Your task to perform on an android device: Search for "lenovo thinkpad" on newegg, select the first entry, add it to the cart, then select checkout. Image 0: 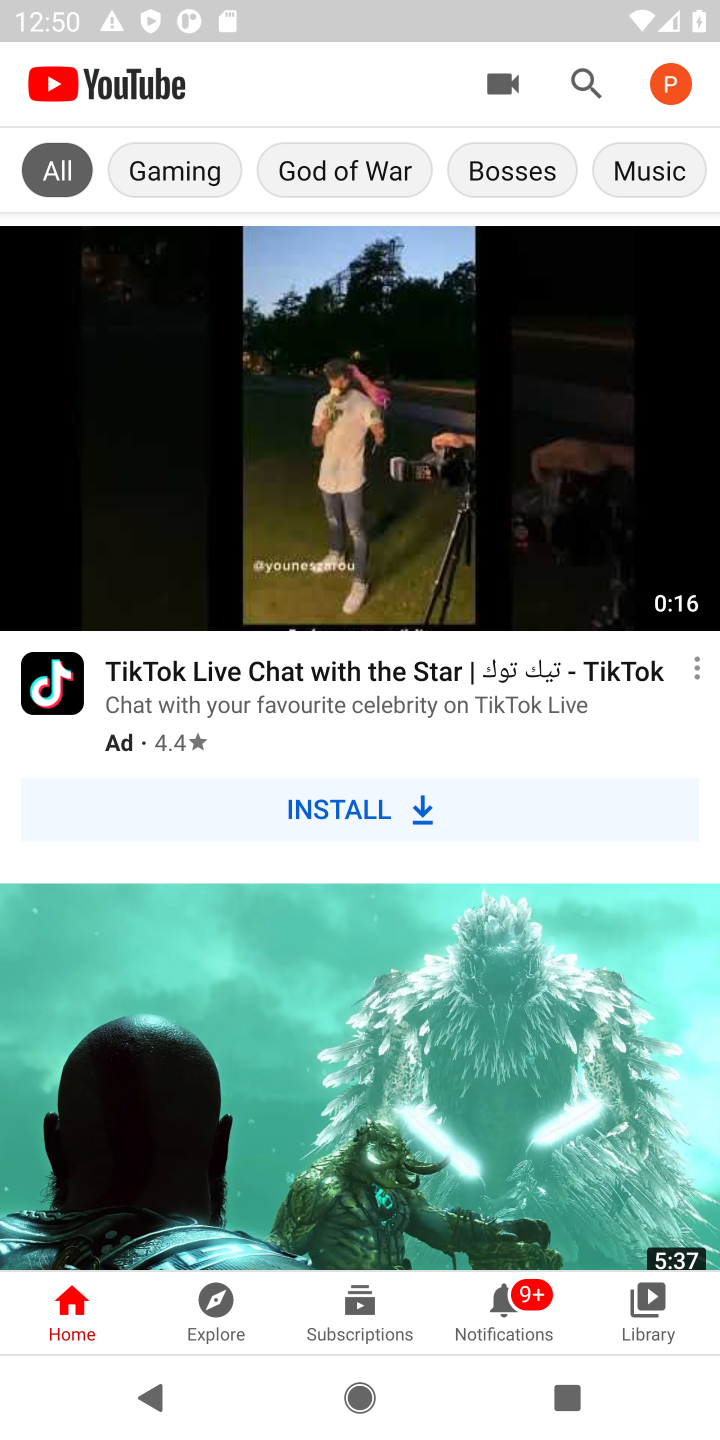
Step 0: press home button
Your task to perform on an android device: Search for "lenovo thinkpad" on newegg, select the first entry, add it to the cart, then select checkout. Image 1: 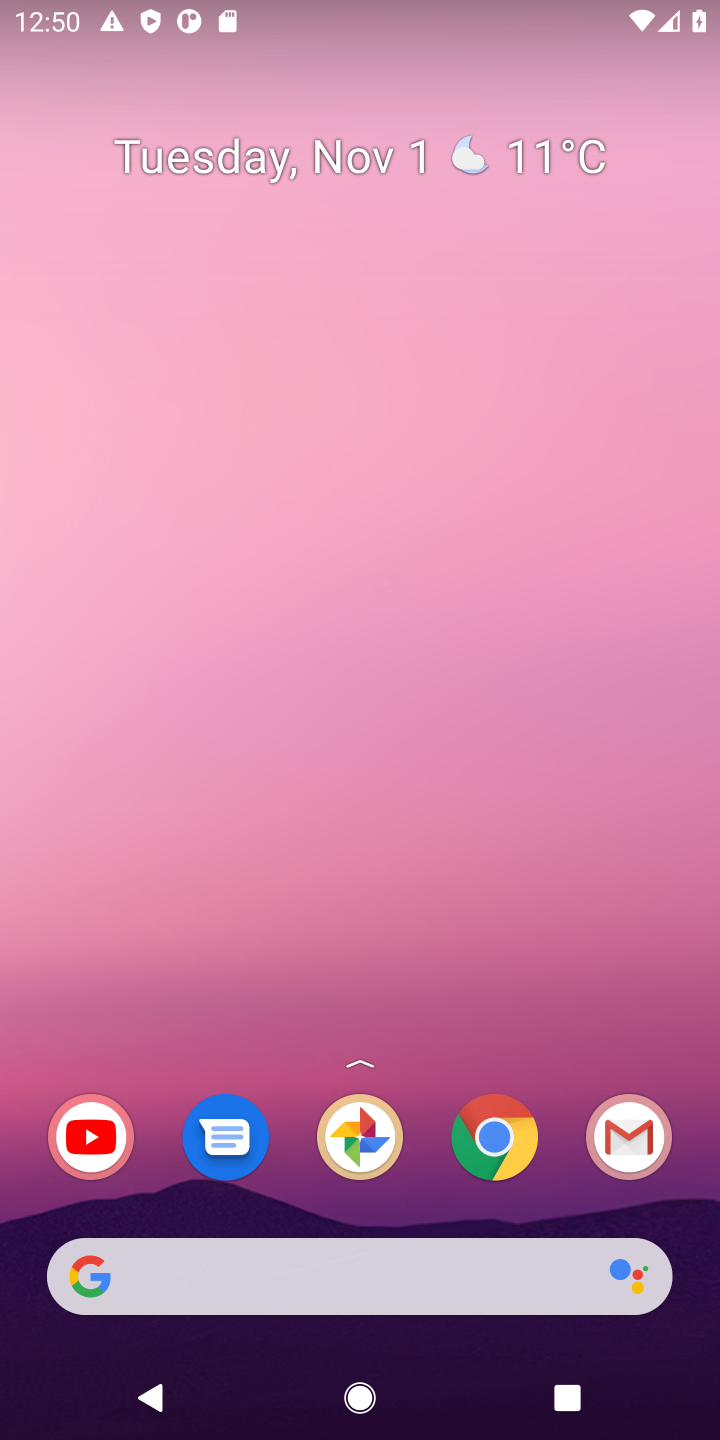
Step 1: click (404, 1266)
Your task to perform on an android device: Search for "lenovo thinkpad" on newegg, select the first entry, add it to the cart, then select checkout. Image 2: 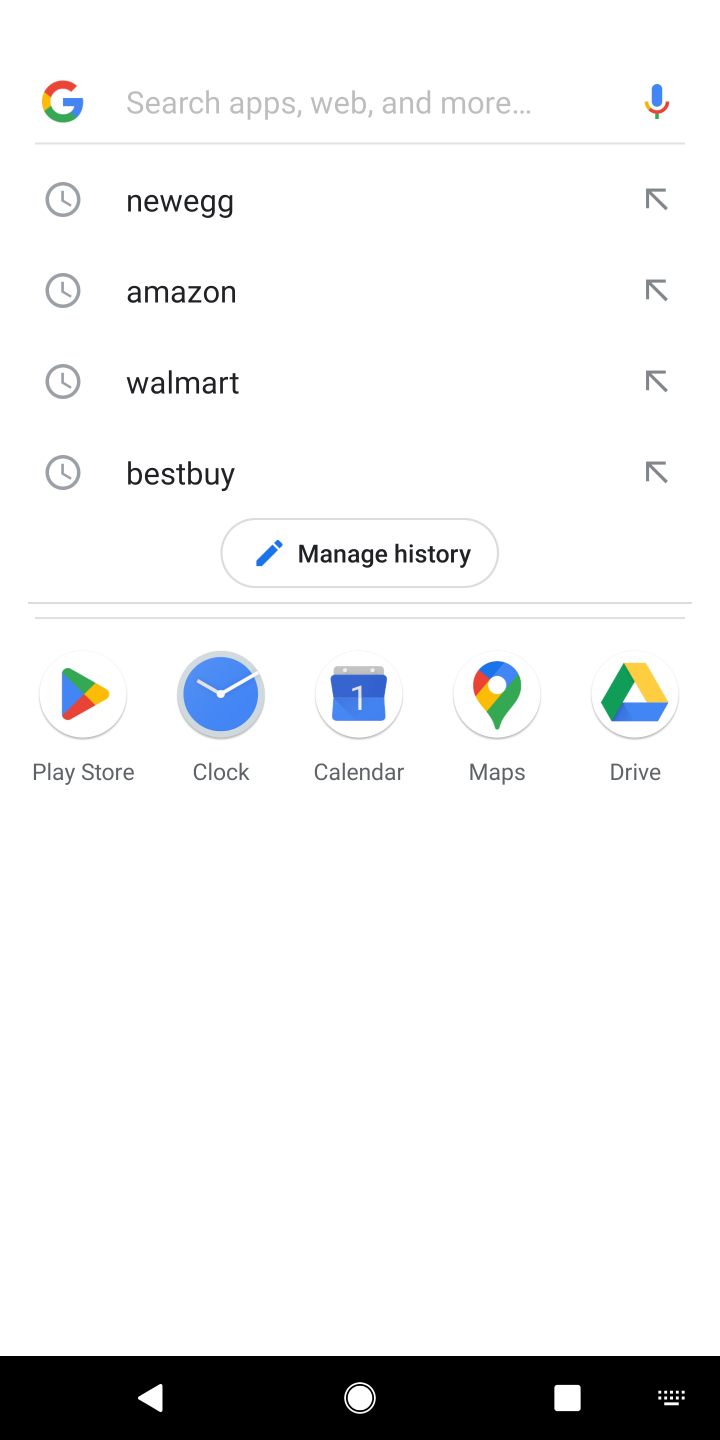
Step 2: type "newegg"
Your task to perform on an android device: Search for "lenovo thinkpad" on newegg, select the first entry, add it to the cart, then select checkout. Image 3: 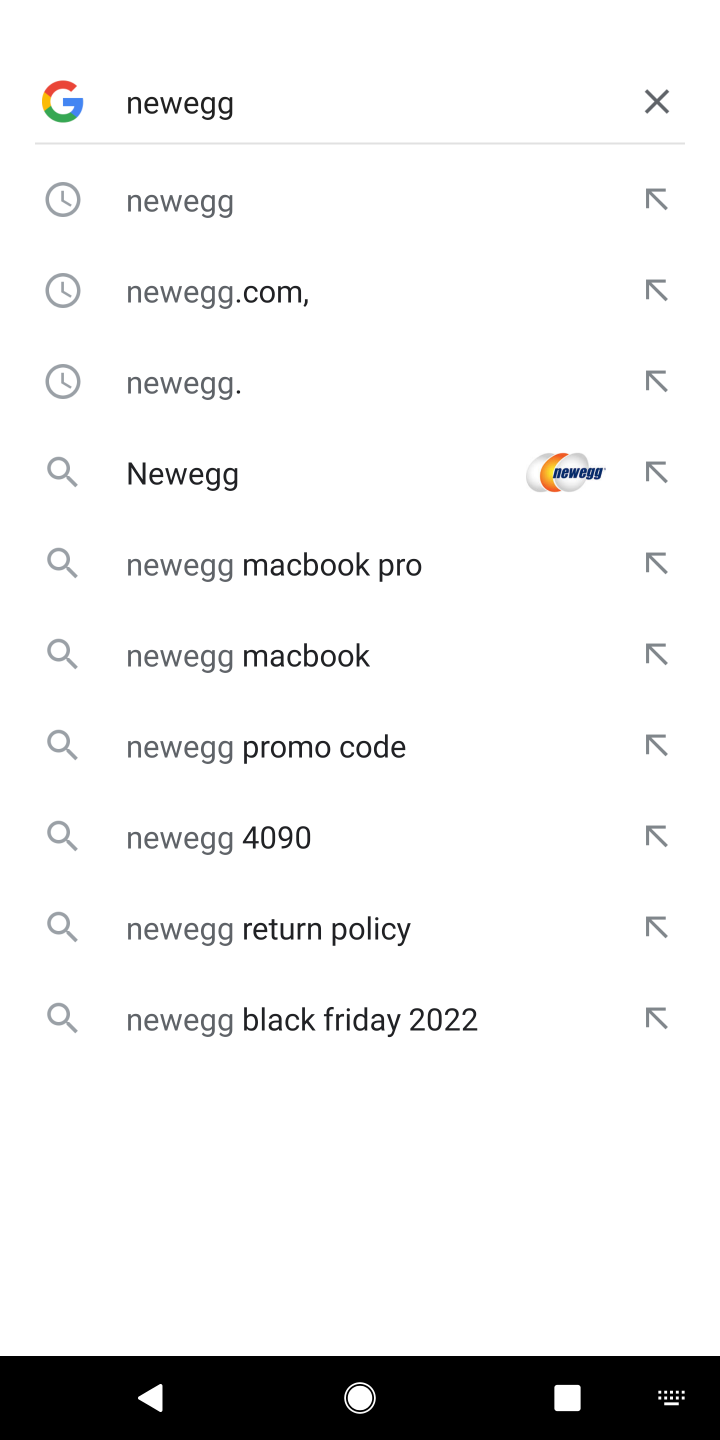
Step 3: click (127, 189)
Your task to perform on an android device: Search for "lenovo thinkpad" on newegg, select the first entry, add it to the cart, then select checkout. Image 4: 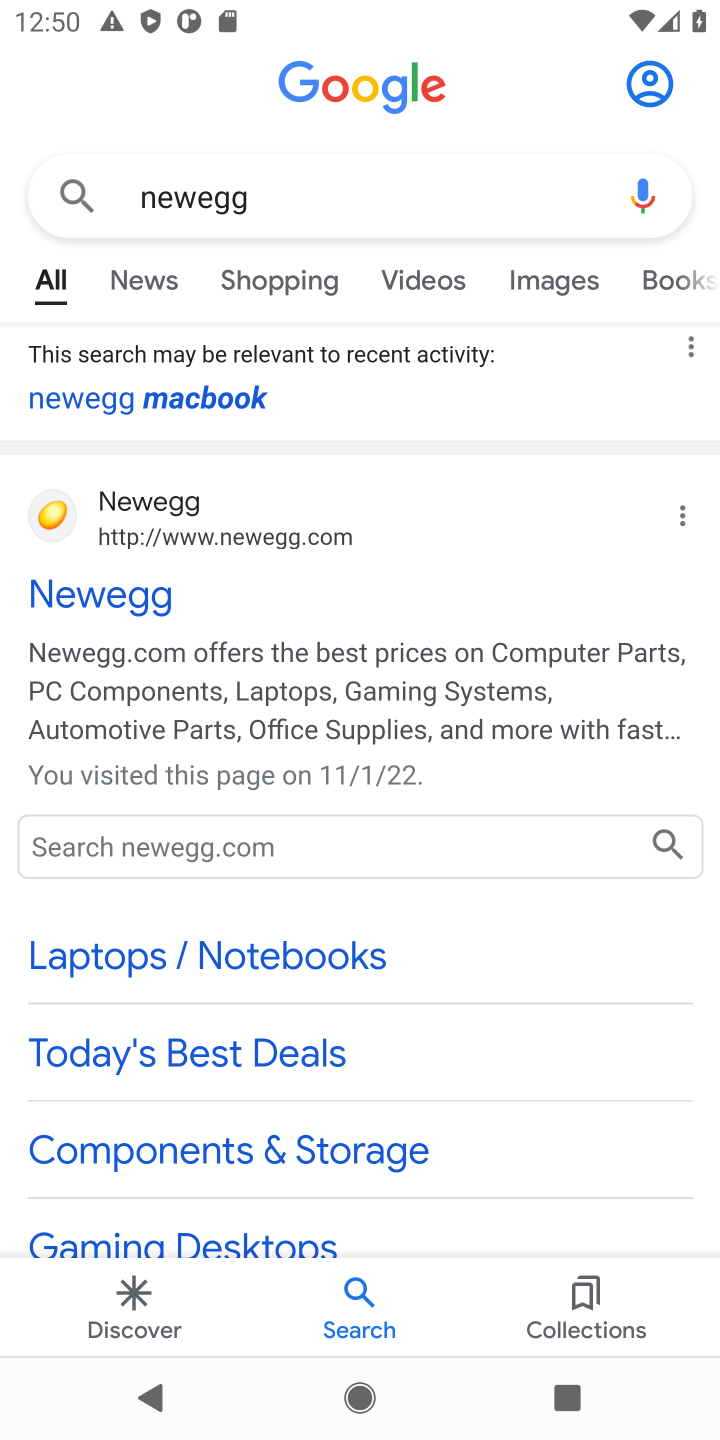
Step 4: click (170, 842)
Your task to perform on an android device: Search for "lenovo thinkpad" on newegg, select the first entry, add it to the cart, then select checkout. Image 5: 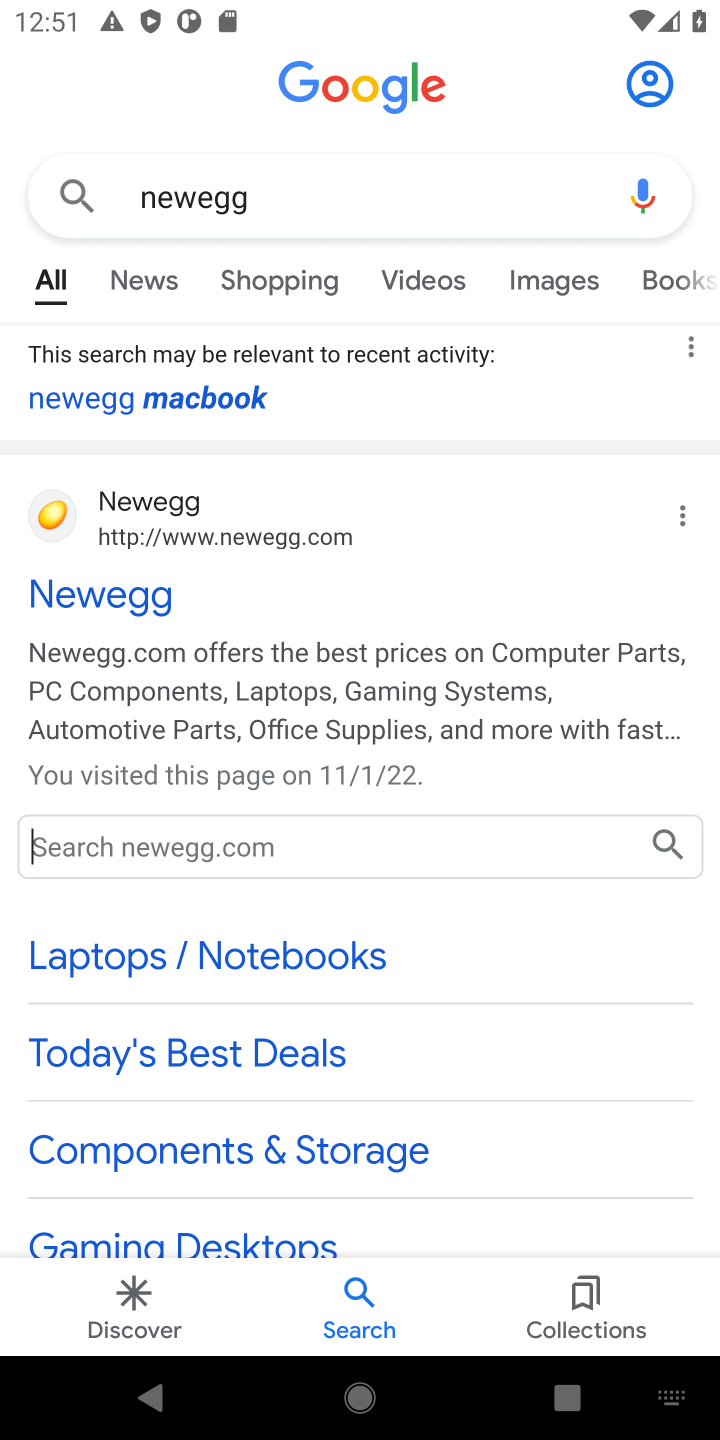
Step 5: type "lenovo thinkpad"
Your task to perform on an android device: Search for "lenovo thinkpad" on newegg, select the first entry, add it to the cart, then select checkout. Image 6: 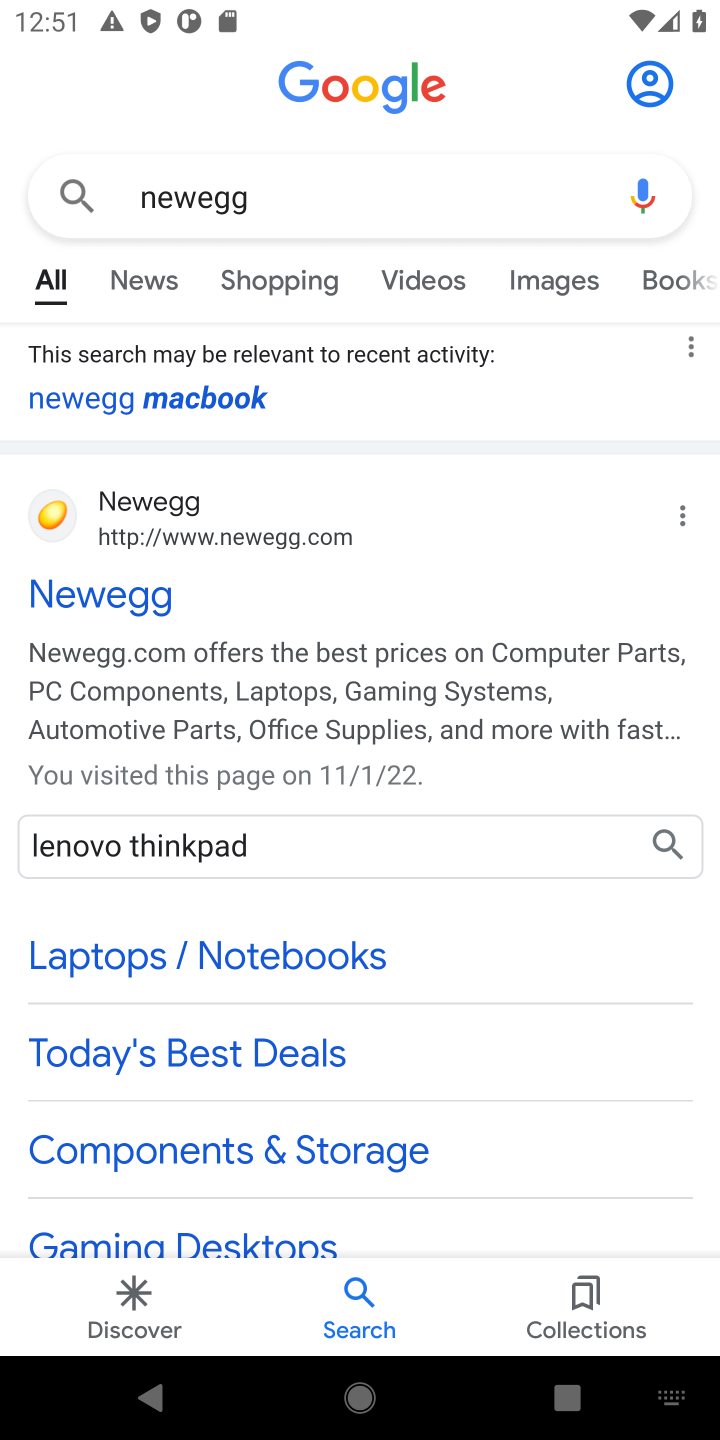
Step 6: click (656, 845)
Your task to perform on an android device: Search for "lenovo thinkpad" on newegg, select the first entry, add it to the cart, then select checkout. Image 7: 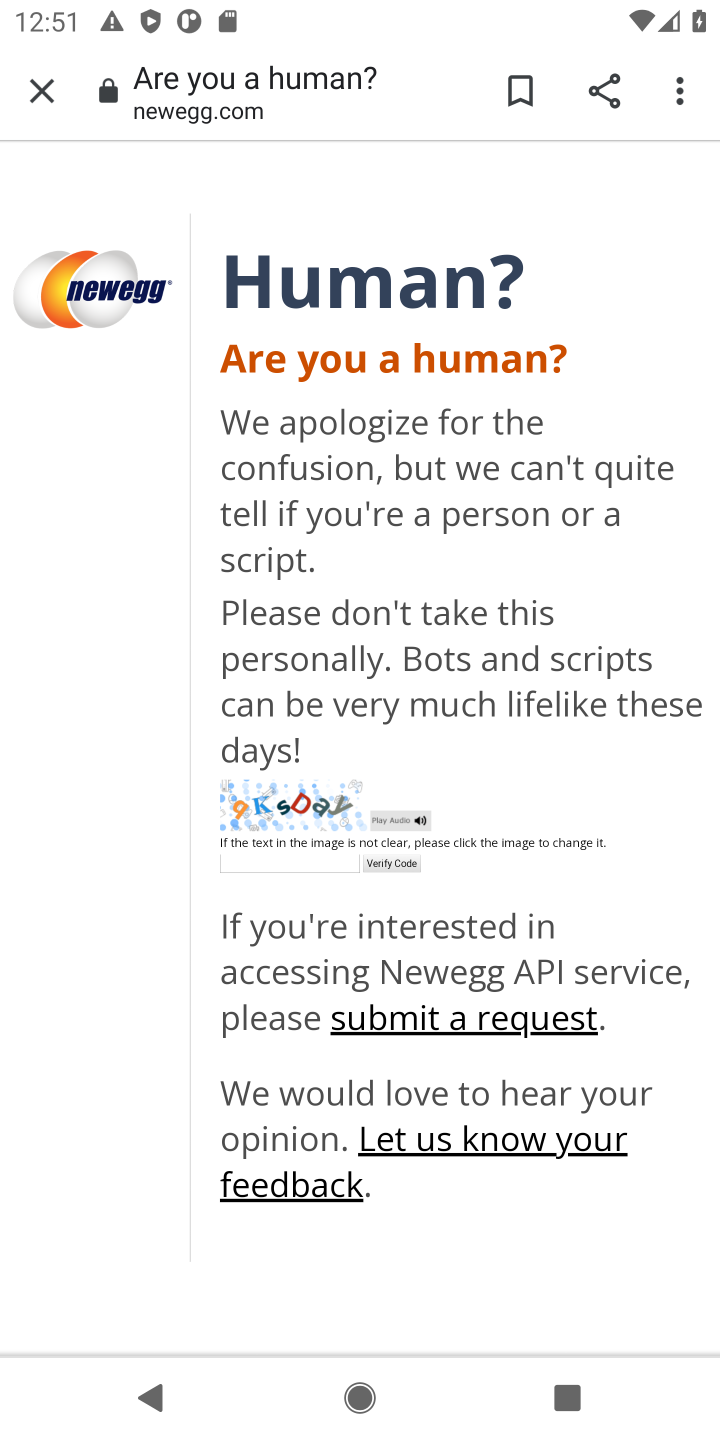
Step 7: click (264, 870)
Your task to perform on an android device: Search for "lenovo thinkpad" on newegg, select the first entry, add it to the cart, then select checkout. Image 8: 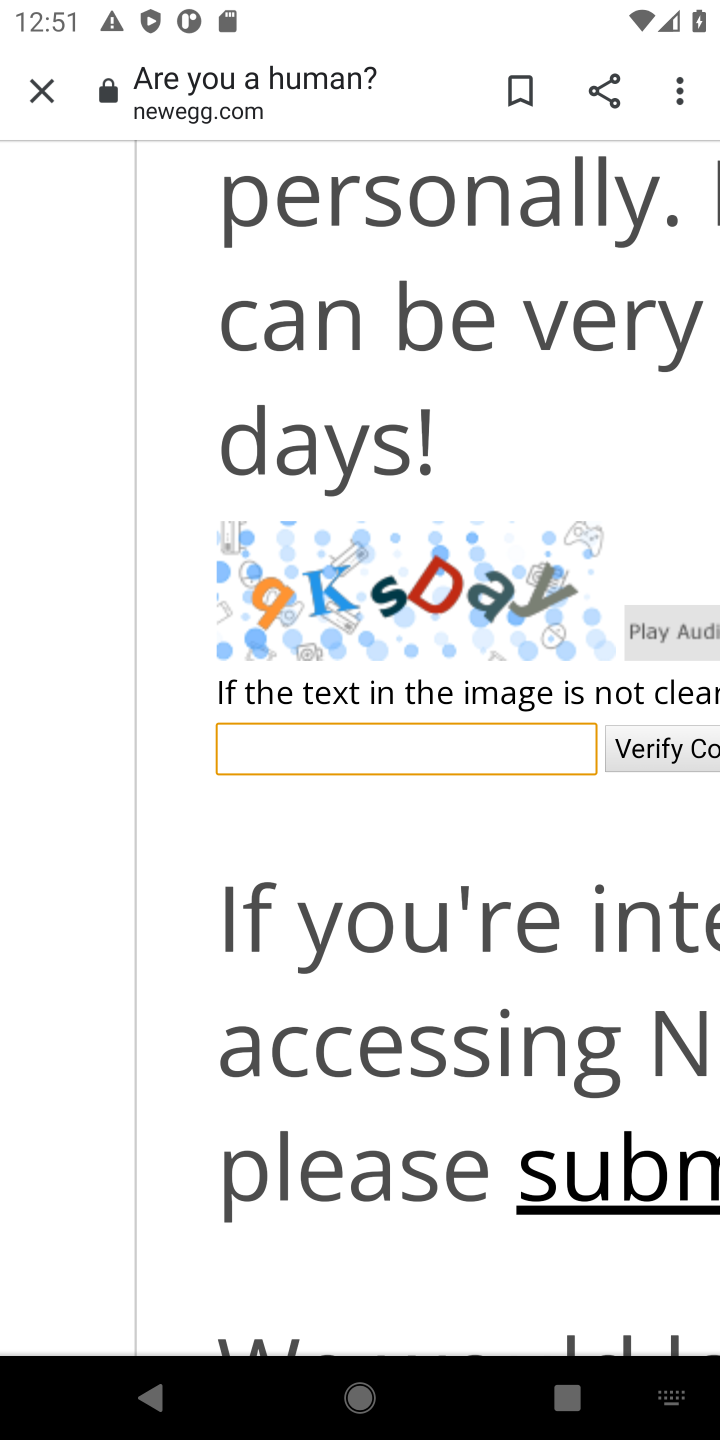
Step 8: type "qKsDay"
Your task to perform on an android device: Search for "lenovo thinkpad" on newegg, select the first entry, add it to the cart, then select checkout. Image 9: 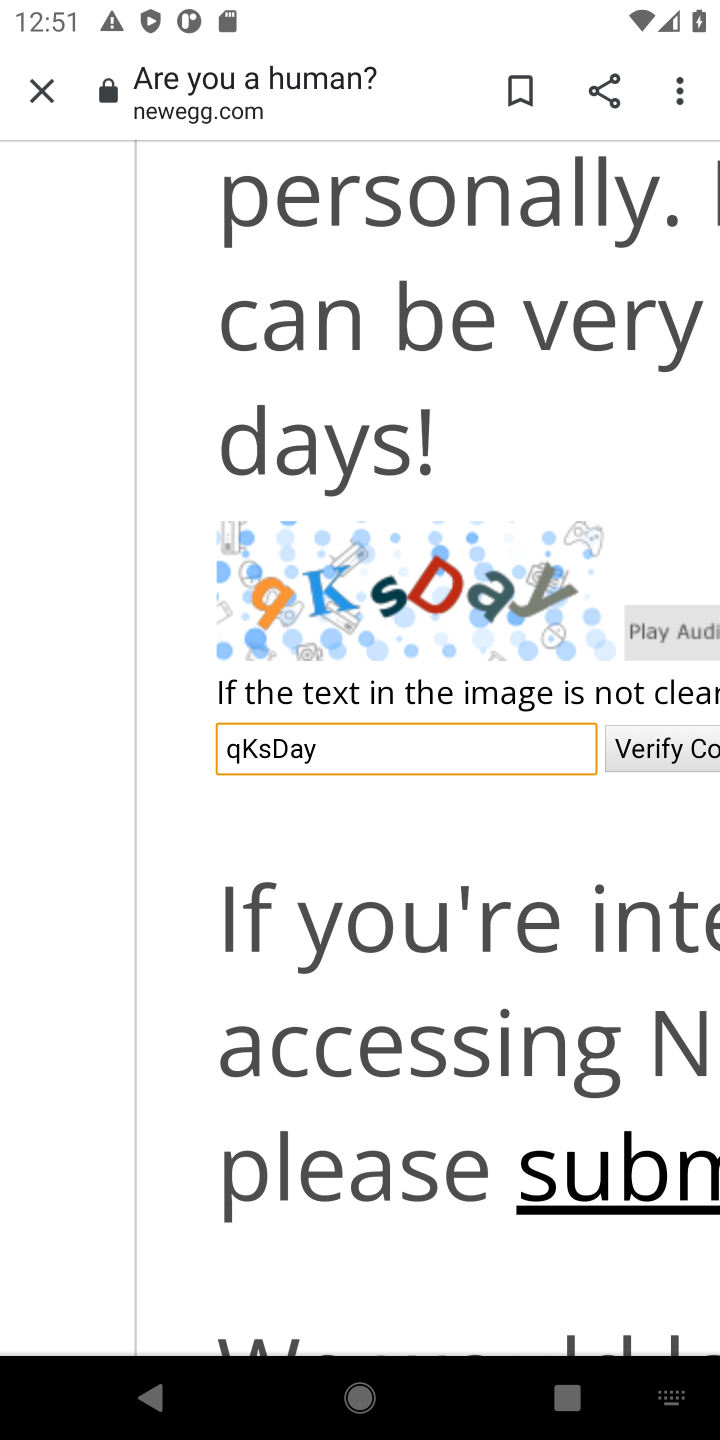
Step 9: click (647, 745)
Your task to perform on an android device: Search for "lenovo thinkpad" on newegg, select the first entry, add it to the cart, then select checkout. Image 10: 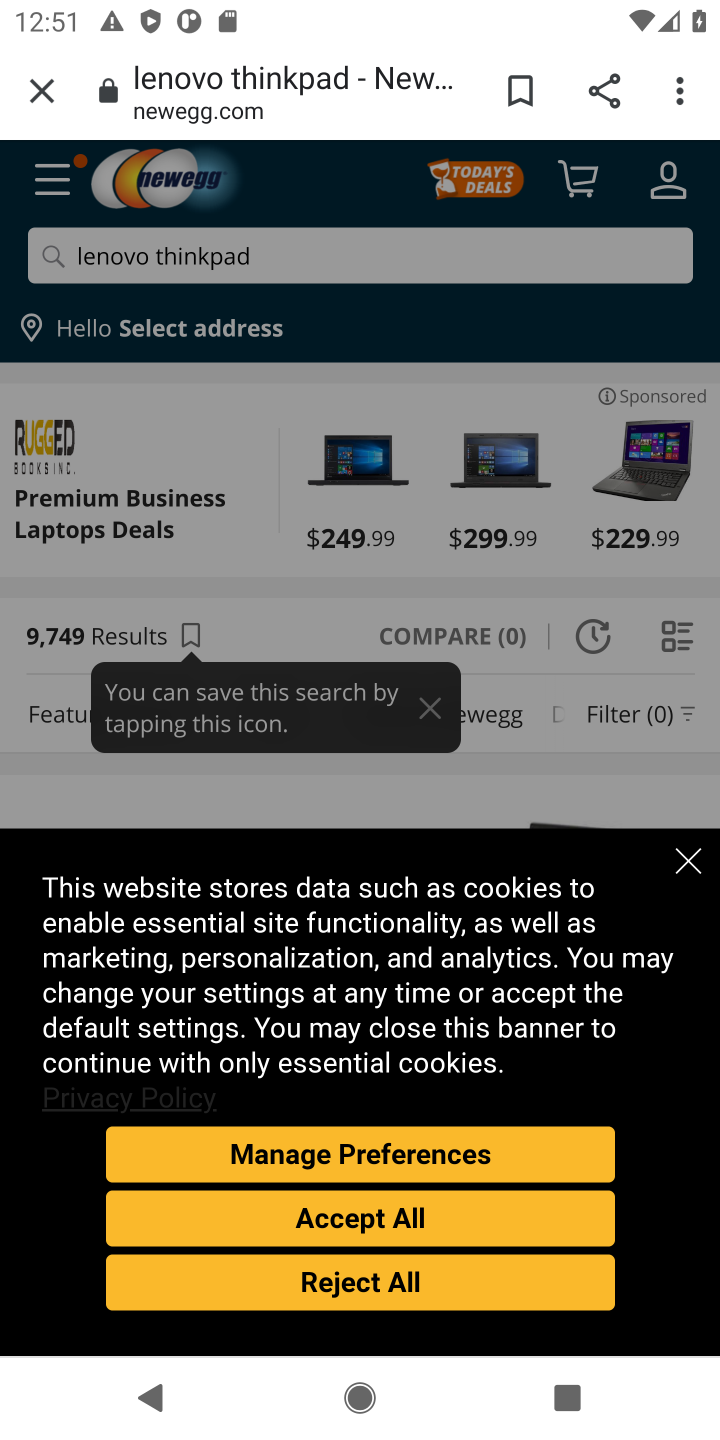
Step 10: click (76, 1249)
Your task to perform on an android device: Search for "lenovo thinkpad" on newegg, select the first entry, add it to the cart, then select checkout. Image 11: 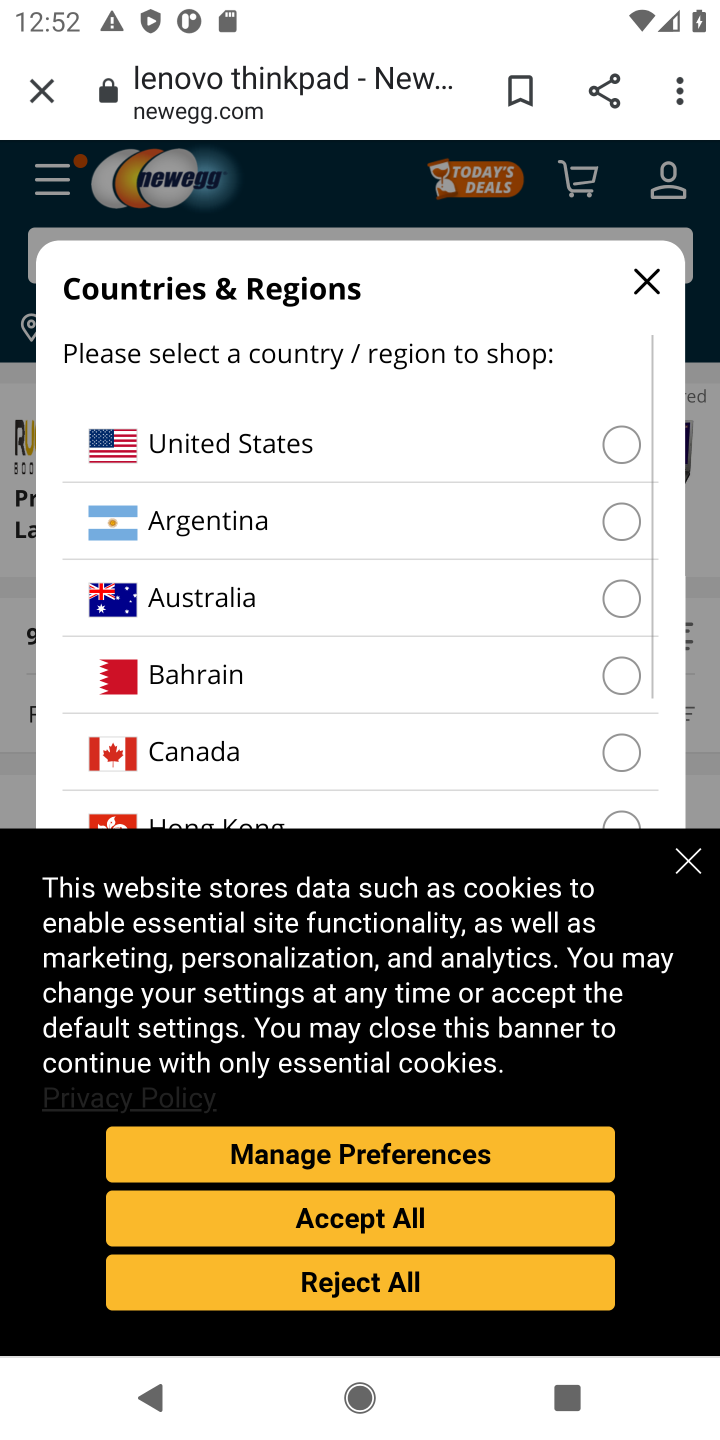
Step 11: click (685, 859)
Your task to perform on an android device: Search for "lenovo thinkpad" on newegg, select the first entry, add it to the cart, then select checkout. Image 12: 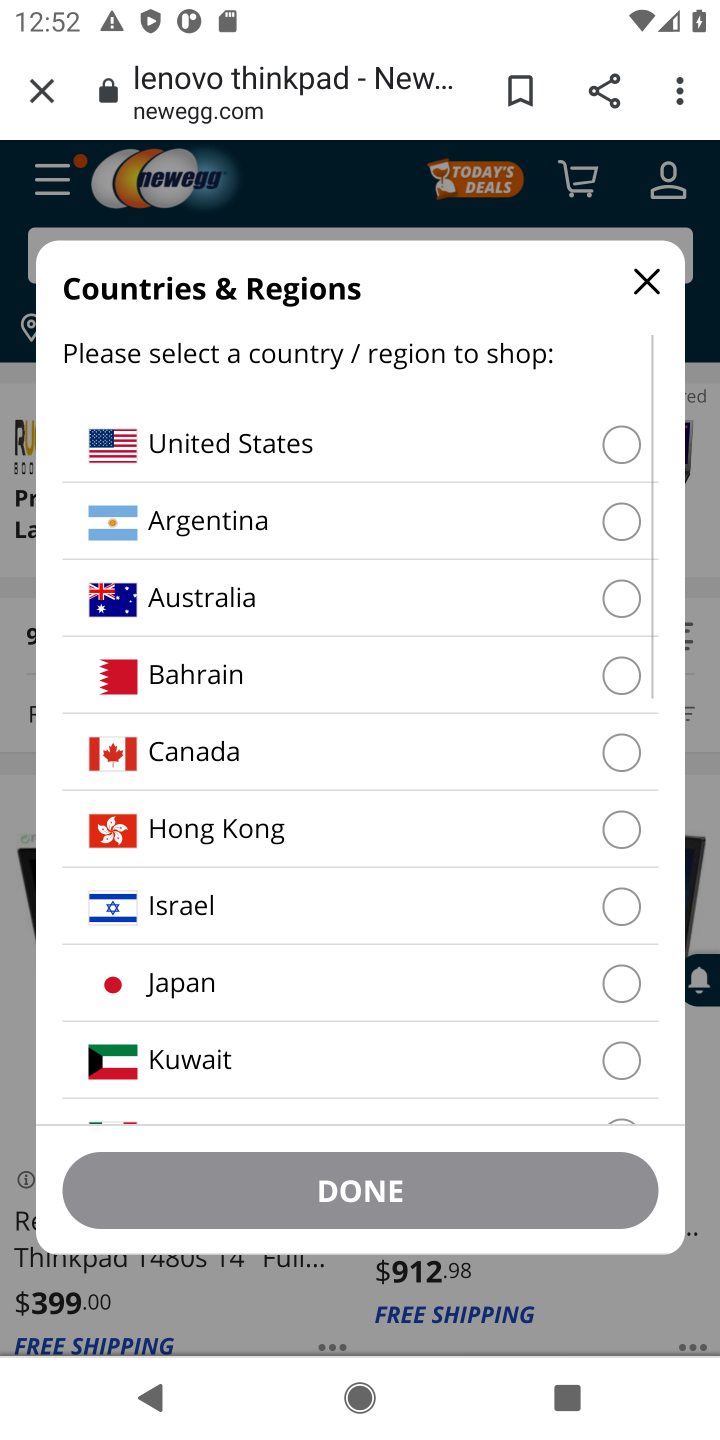
Step 12: click (613, 441)
Your task to perform on an android device: Search for "lenovo thinkpad" on newegg, select the first entry, add it to the cart, then select checkout. Image 13: 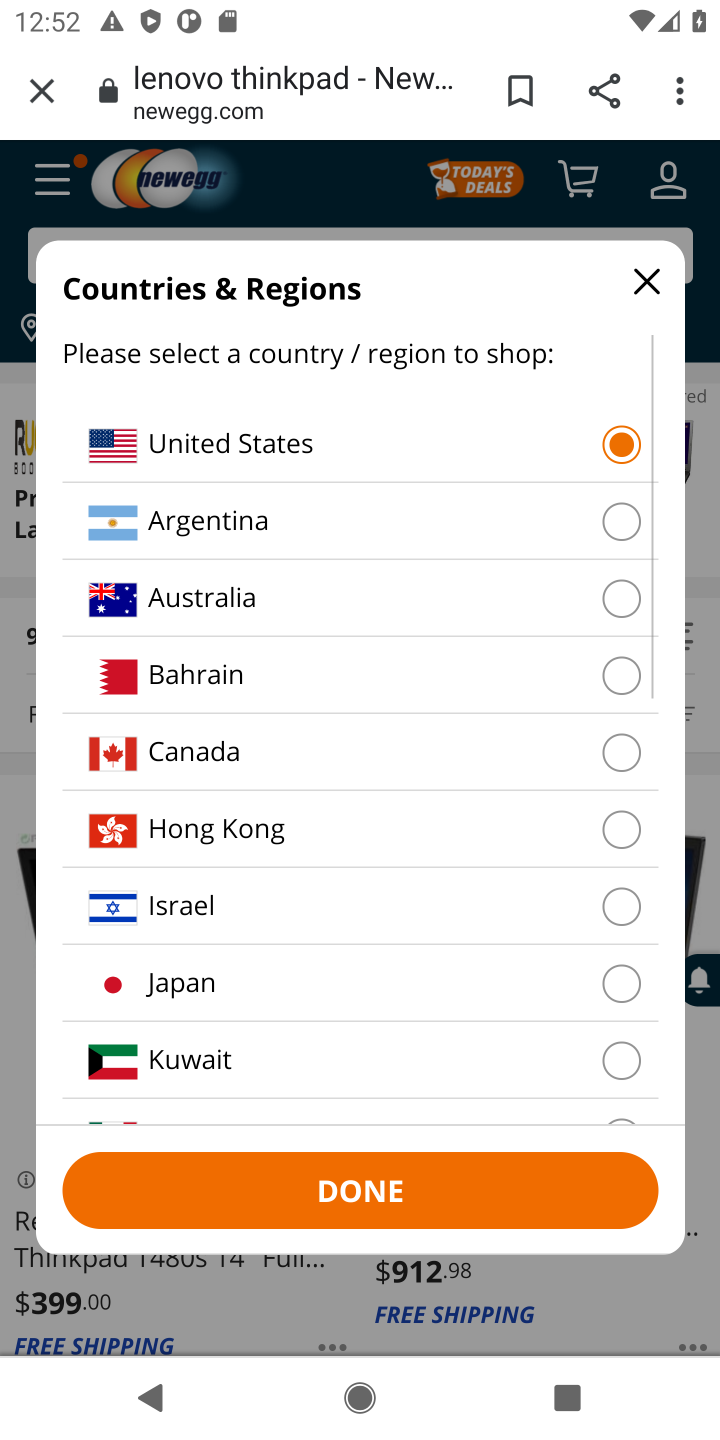
Step 13: click (357, 1211)
Your task to perform on an android device: Search for "lenovo thinkpad" on newegg, select the first entry, add it to the cart, then select checkout. Image 14: 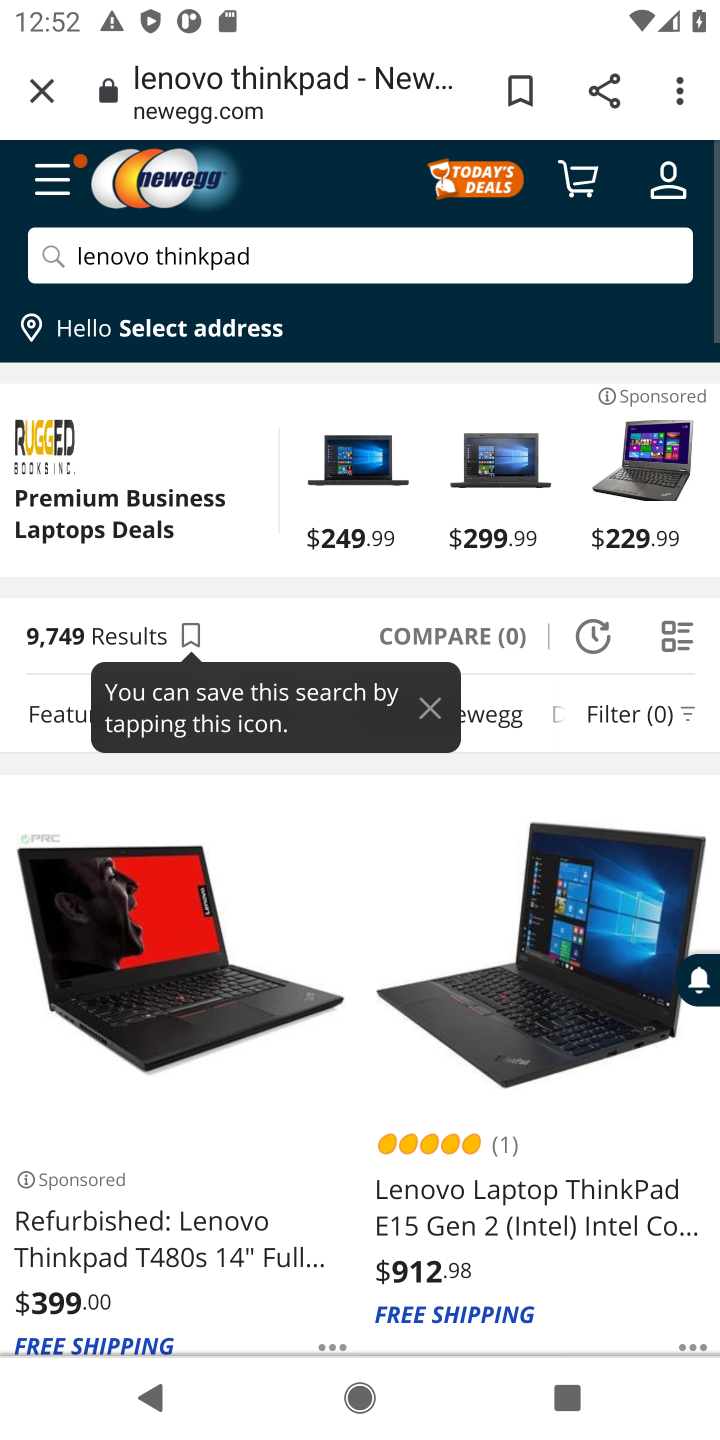
Step 14: click (431, 1215)
Your task to perform on an android device: Search for "lenovo thinkpad" on newegg, select the first entry, add it to the cart, then select checkout. Image 15: 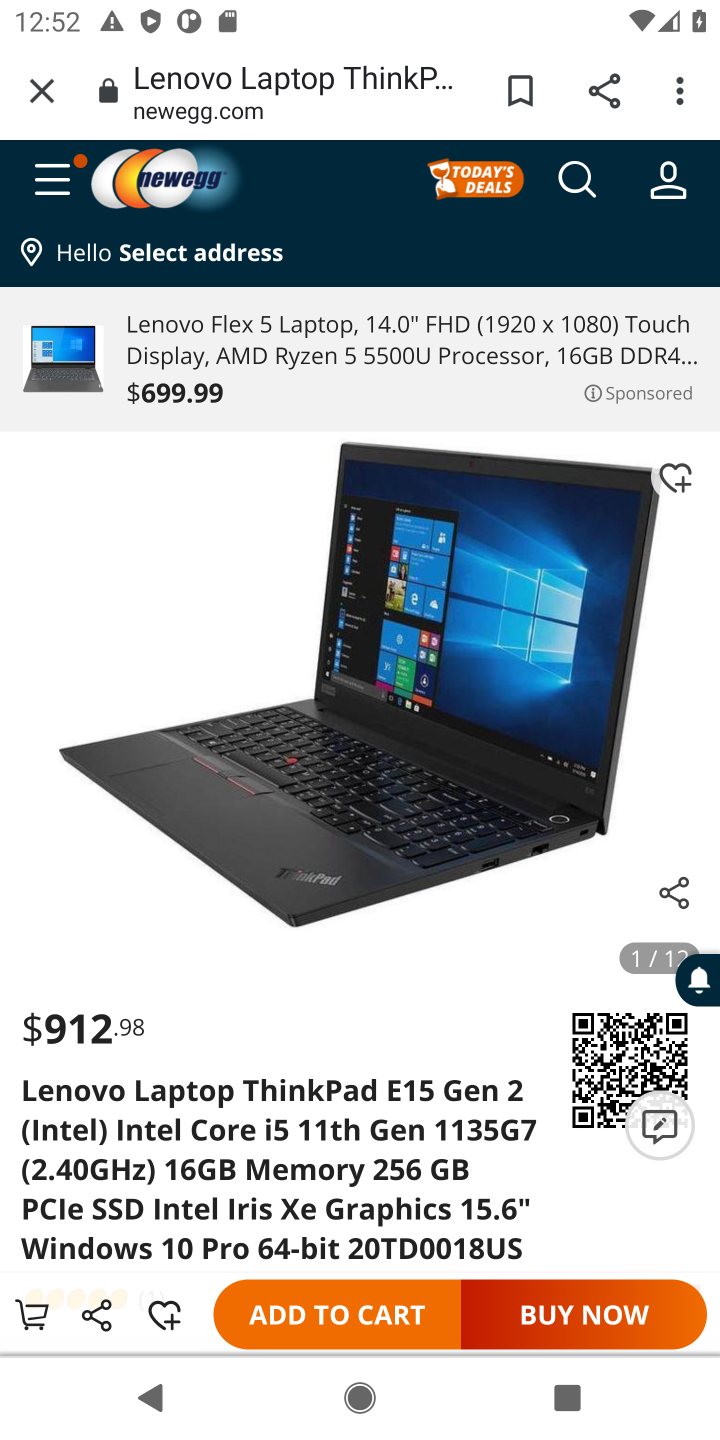
Step 15: click (320, 1313)
Your task to perform on an android device: Search for "lenovo thinkpad" on newegg, select the first entry, add it to the cart, then select checkout. Image 16: 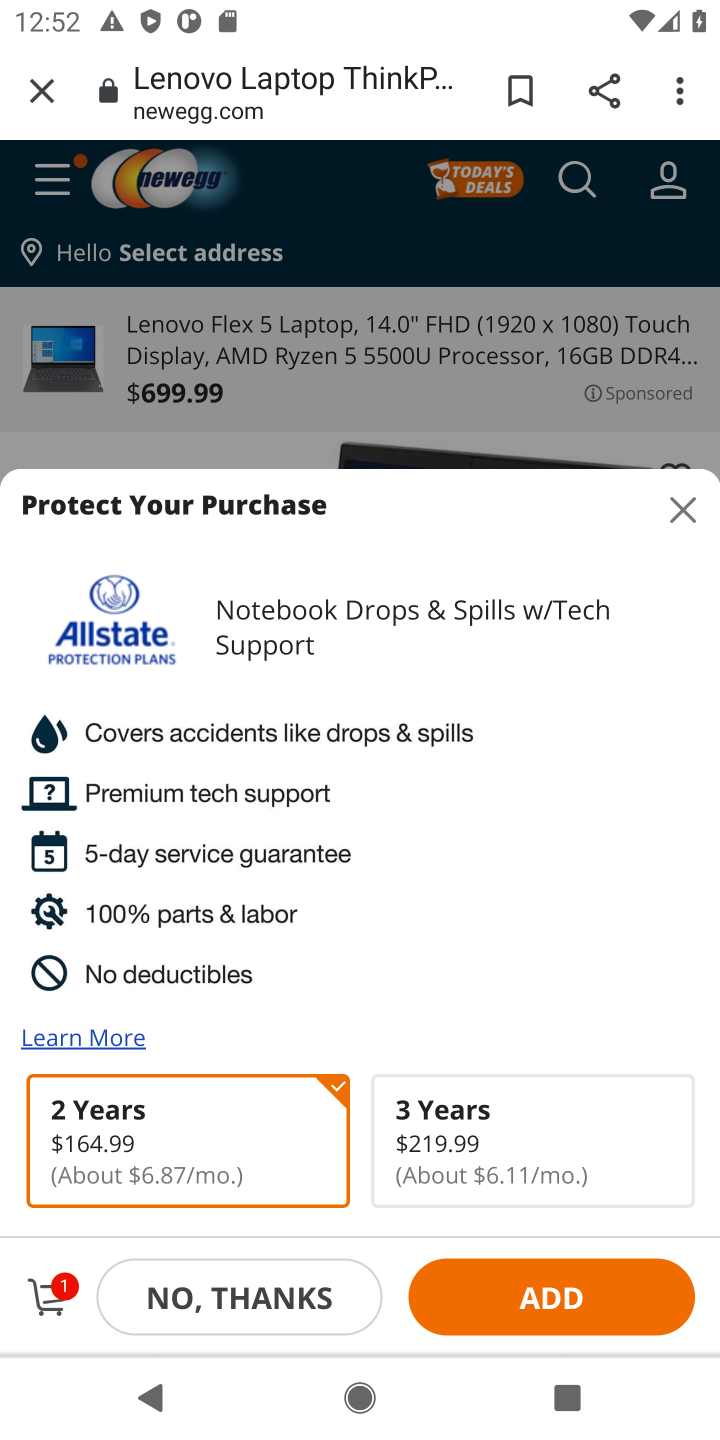
Step 16: click (227, 1299)
Your task to perform on an android device: Search for "lenovo thinkpad" on newegg, select the first entry, add it to the cart, then select checkout. Image 17: 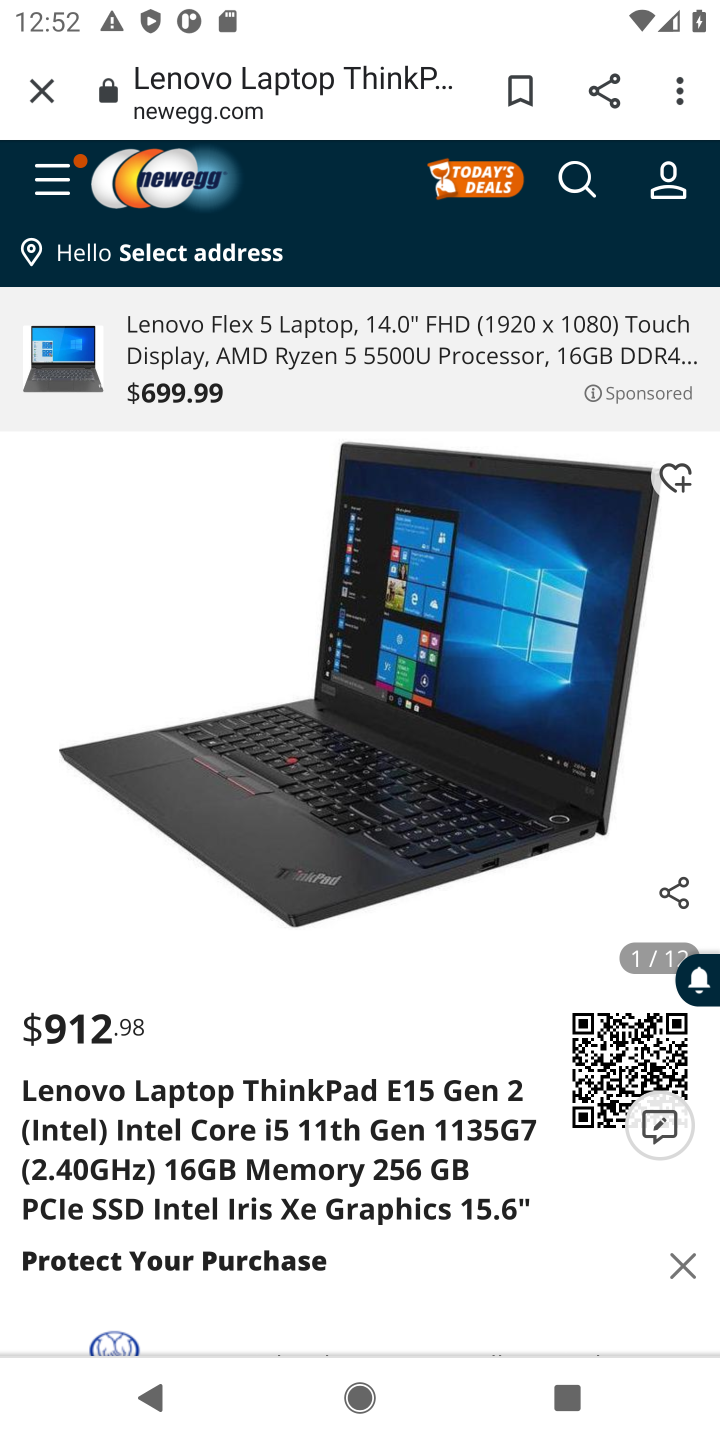
Step 17: task complete